Your task to perform on an android device: Go to CNN.com Image 0: 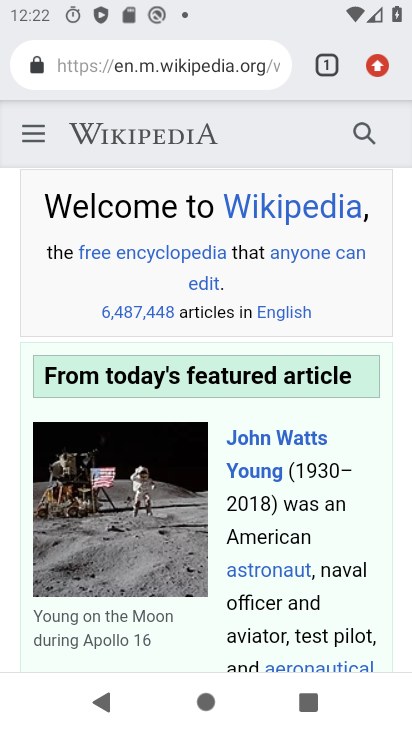
Step 0: click (94, 68)
Your task to perform on an android device: Go to CNN.com Image 1: 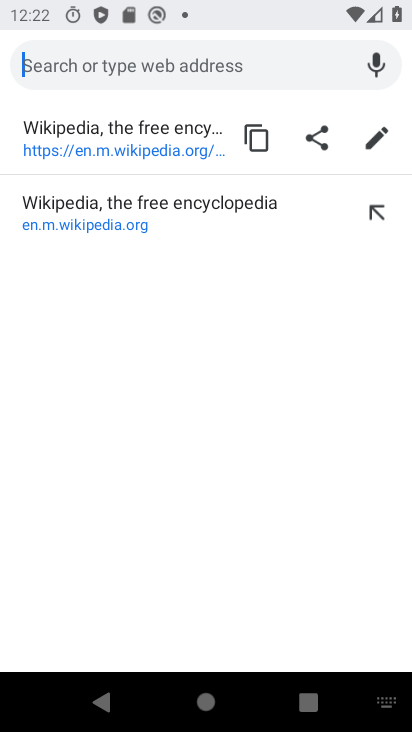
Step 1: type "CNN.com"
Your task to perform on an android device: Go to CNN.com Image 2: 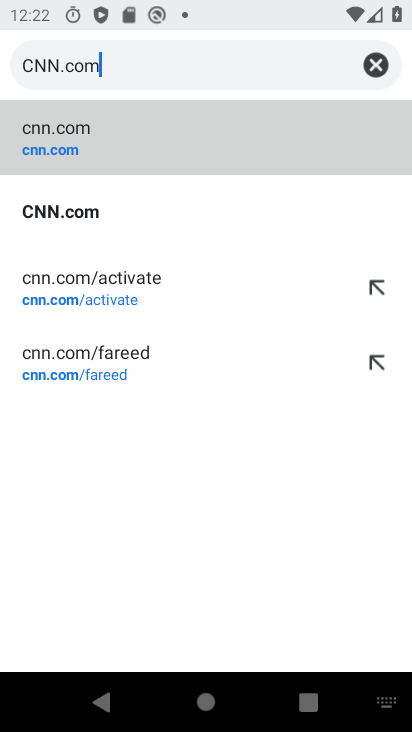
Step 2: click (17, 133)
Your task to perform on an android device: Go to CNN.com Image 3: 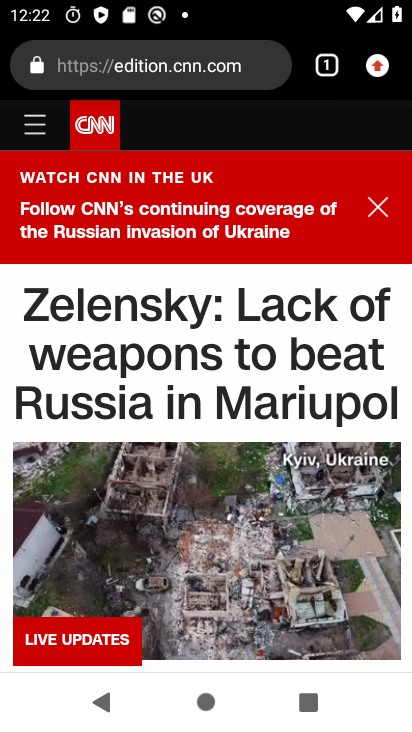
Step 3: task complete